Your task to perform on an android device: Open location settings Image 0: 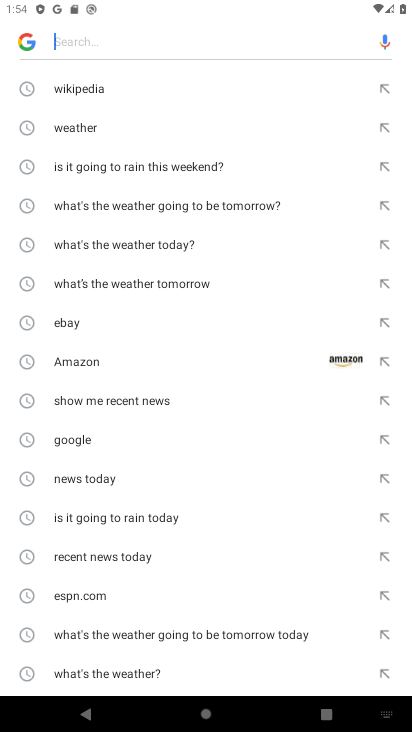
Step 0: press home button
Your task to perform on an android device: Open location settings Image 1: 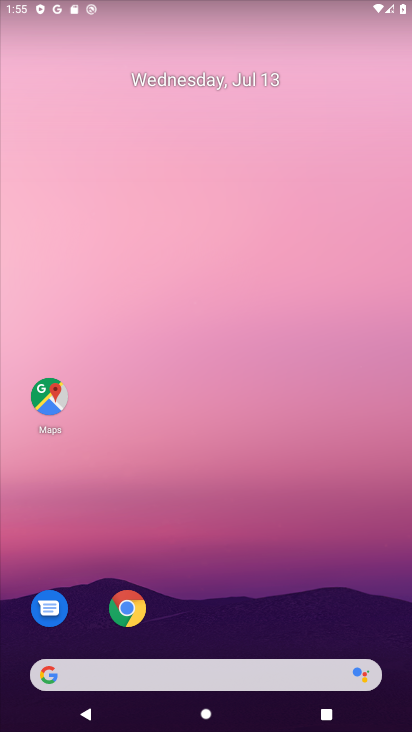
Step 1: drag from (221, 630) to (226, 176)
Your task to perform on an android device: Open location settings Image 2: 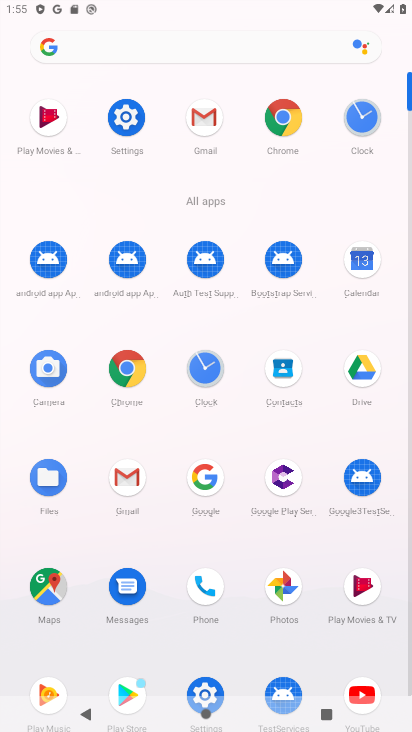
Step 2: click (126, 128)
Your task to perform on an android device: Open location settings Image 3: 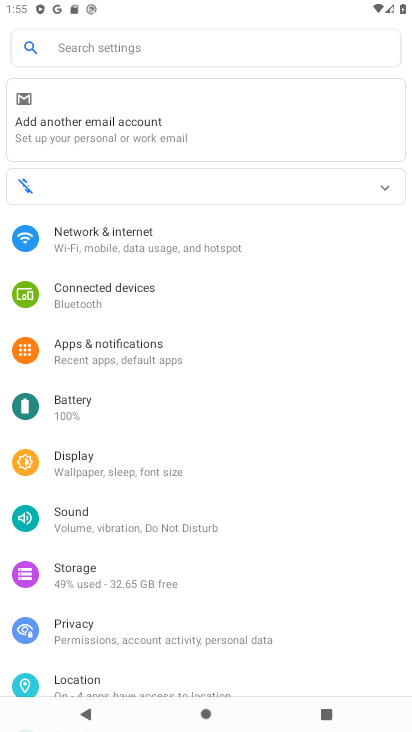
Step 3: click (103, 669)
Your task to perform on an android device: Open location settings Image 4: 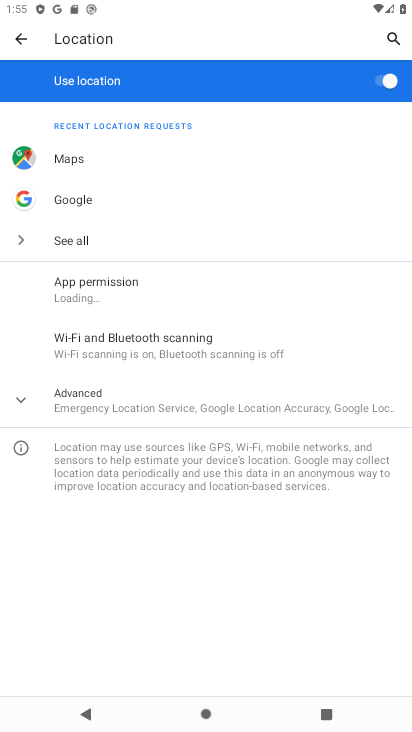
Step 4: task complete